Your task to perform on an android device: Go to network settings Image 0: 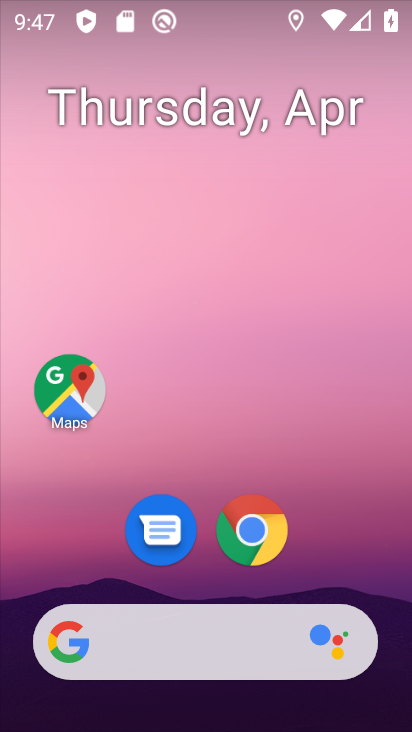
Step 0: drag from (367, 583) to (264, 77)
Your task to perform on an android device: Go to network settings Image 1: 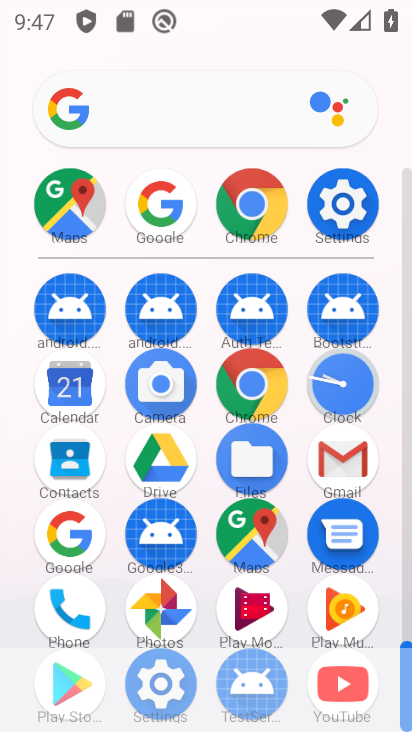
Step 1: click (342, 200)
Your task to perform on an android device: Go to network settings Image 2: 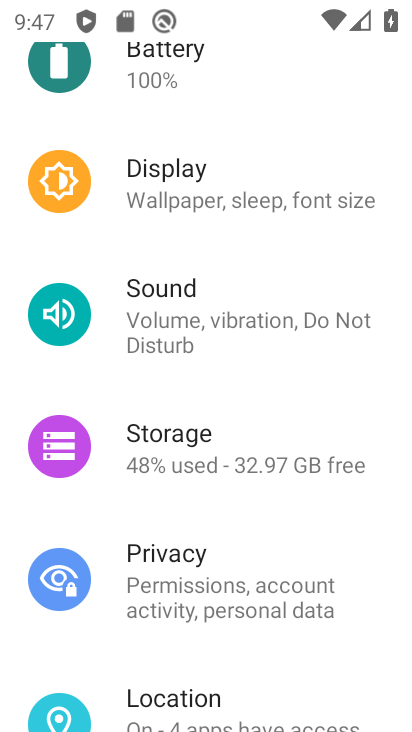
Step 2: drag from (202, 109) to (169, 585)
Your task to perform on an android device: Go to network settings Image 3: 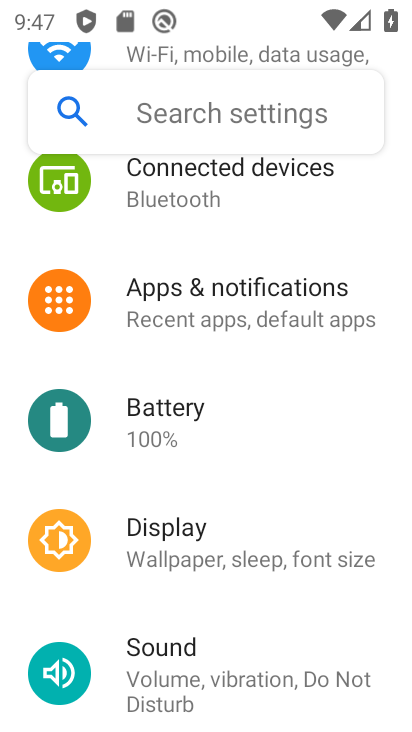
Step 3: drag from (191, 213) to (220, 614)
Your task to perform on an android device: Go to network settings Image 4: 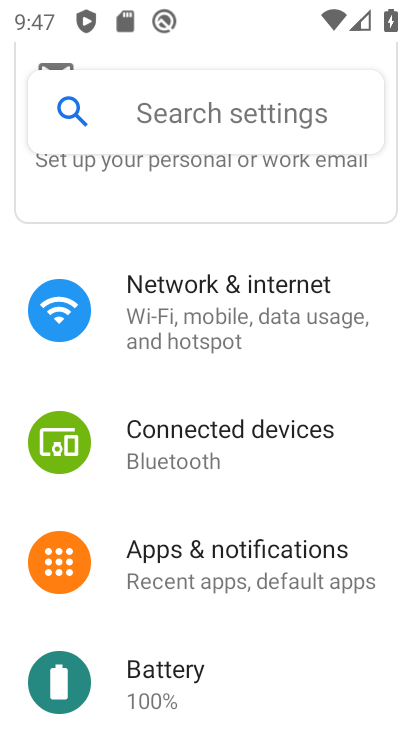
Step 4: click (187, 339)
Your task to perform on an android device: Go to network settings Image 5: 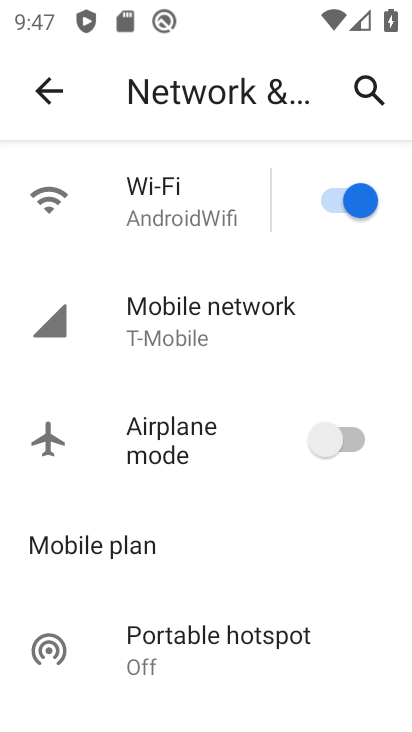
Step 5: task complete